Your task to perform on an android device: change keyboard looks Image 0: 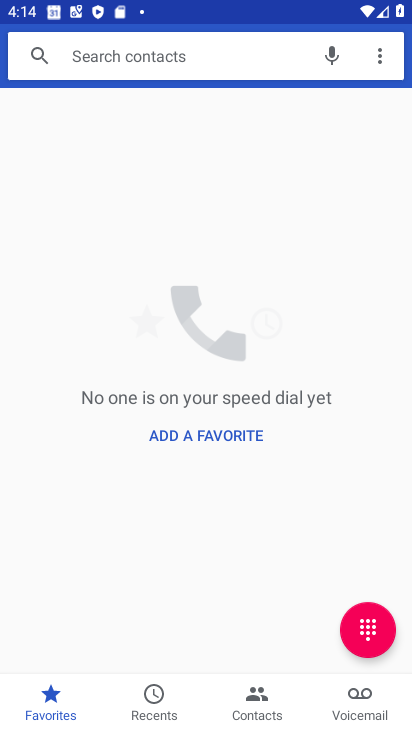
Step 0: press home button
Your task to perform on an android device: change keyboard looks Image 1: 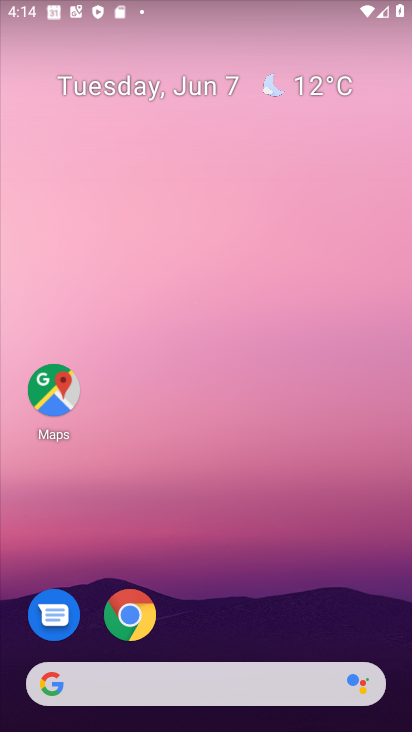
Step 1: drag from (241, 518) to (380, 4)
Your task to perform on an android device: change keyboard looks Image 2: 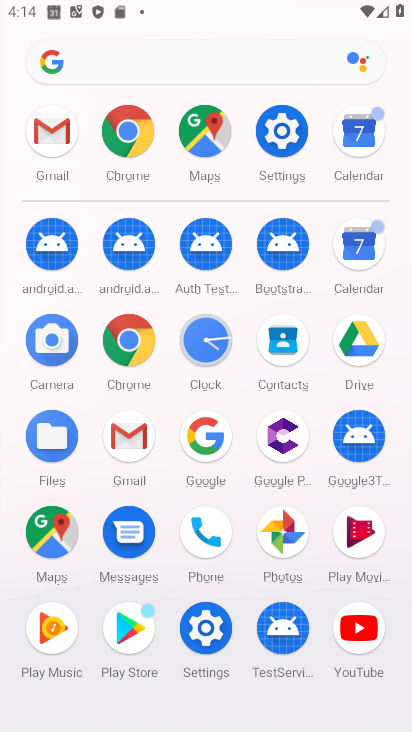
Step 2: click (280, 125)
Your task to perform on an android device: change keyboard looks Image 3: 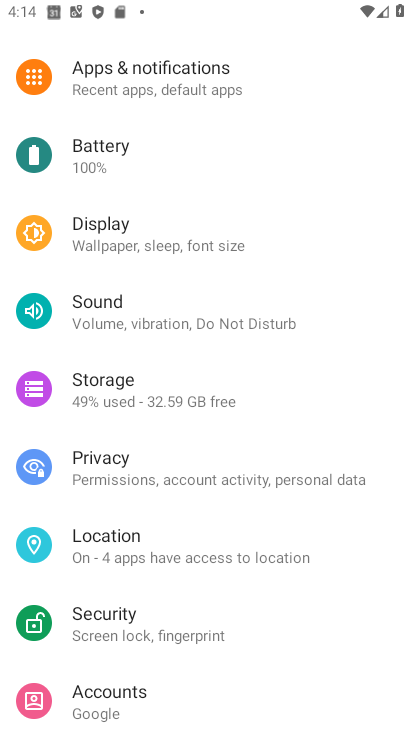
Step 3: drag from (130, 645) to (197, 151)
Your task to perform on an android device: change keyboard looks Image 4: 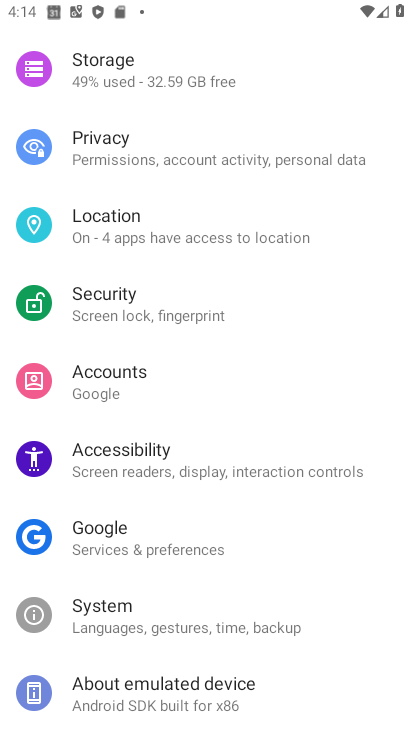
Step 4: click (151, 612)
Your task to perform on an android device: change keyboard looks Image 5: 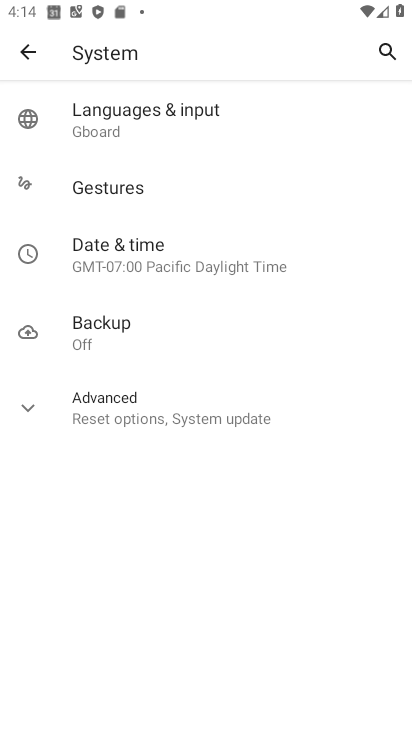
Step 5: click (165, 101)
Your task to perform on an android device: change keyboard looks Image 6: 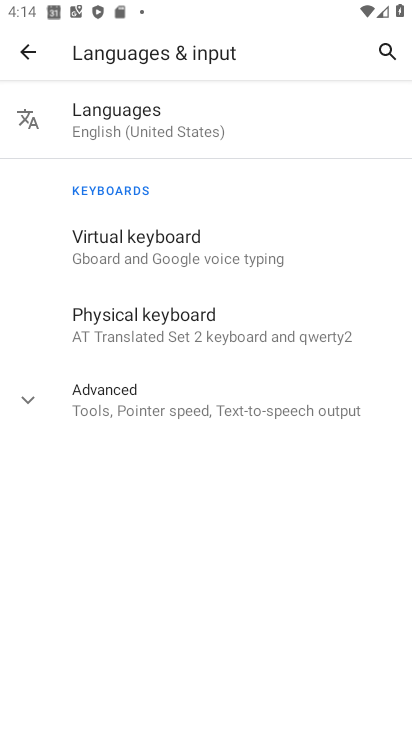
Step 6: click (170, 264)
Your task to perform on an android device: change keyboard looks Image 7: 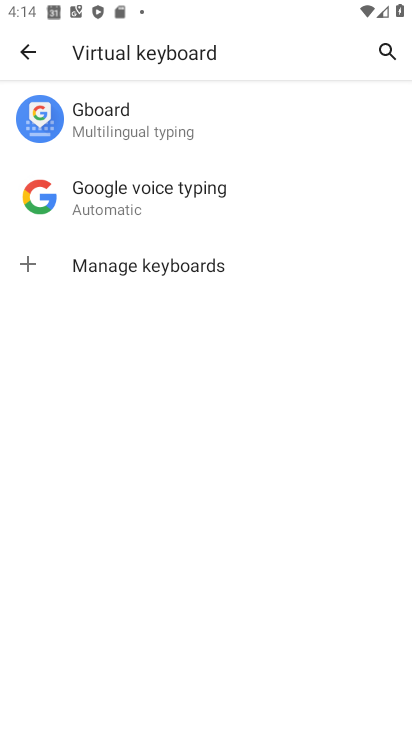
Step 7: click (140, 105)
Your task to perform on an android device: change keyboard looks Image 8: 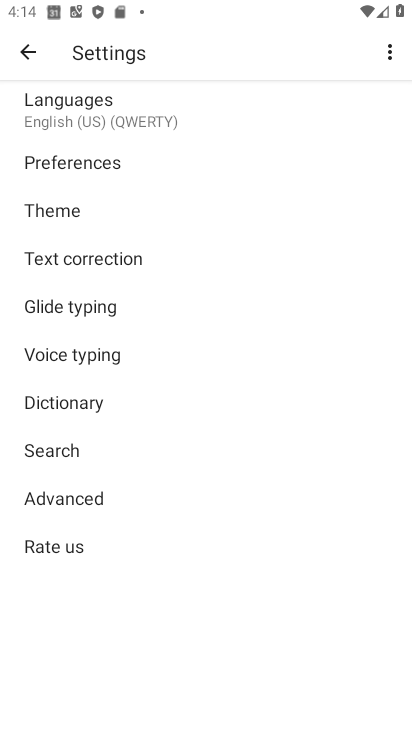
Step 8: click (85, 218)
Your task to perform on an android device: change keyboard looks Image 9: 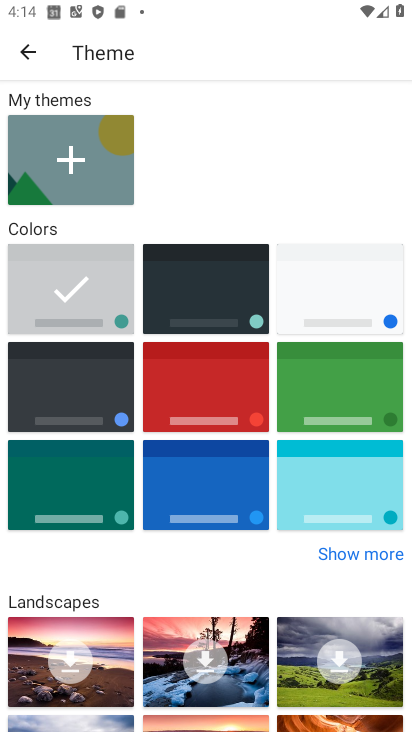
Step 9: click (207, 314)
Your task to perform on an android device: change keyboard looks Image 10: 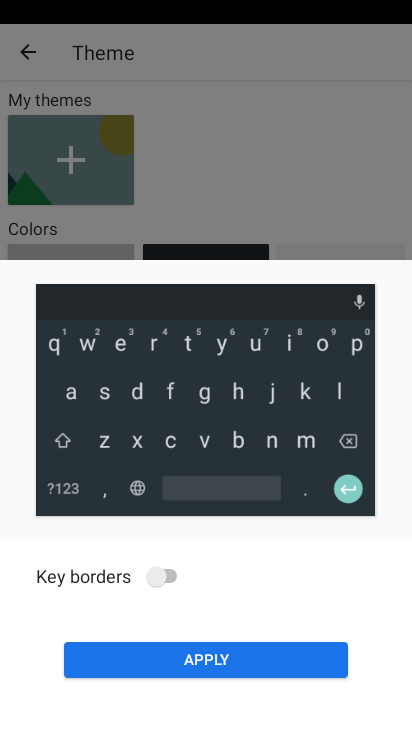
Step 10: task complete